Your task to perform on an android device: toggle wifi Image 0: 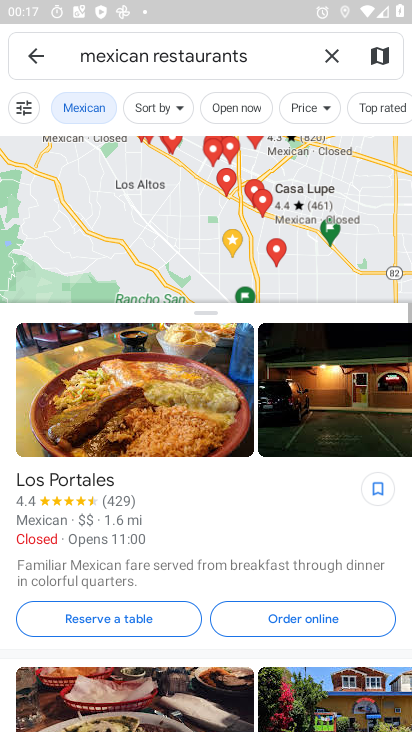
Step 0: press home button
Your task to perform on an android device: toggle wifi Image 1: 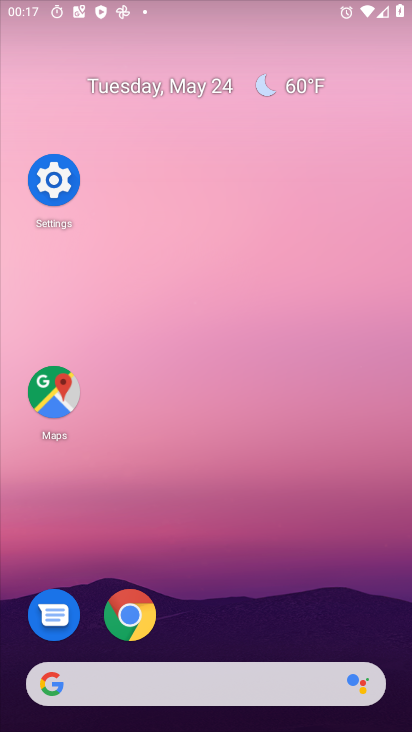
Step 1: drag from (214, 619) to (303, 70)
Your task to perform on an android device: toggle wifi Image 2: 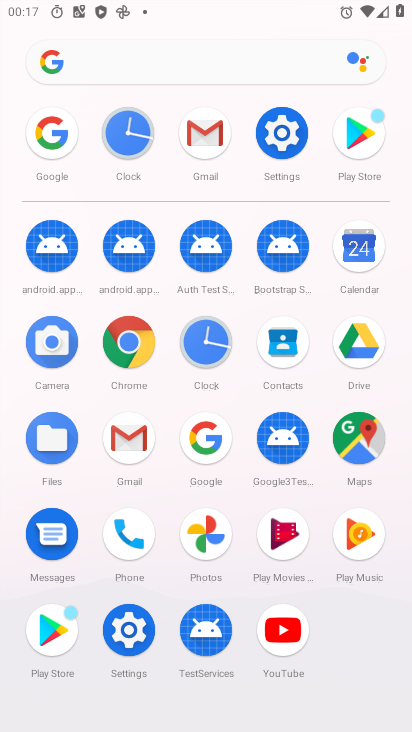
Step 2: click (272, 129)
Your task to perform on an android device: toggle wifi Image 3: 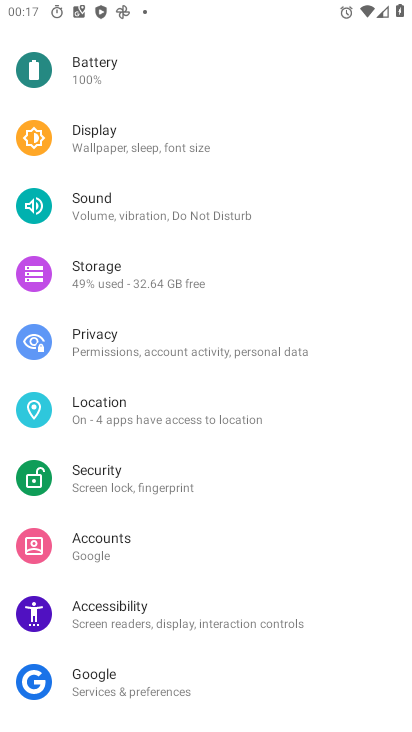
Step 3: drag from (169, 163) to (255, 663)
Your task to perform on an android device: toggle wifi Image 4: 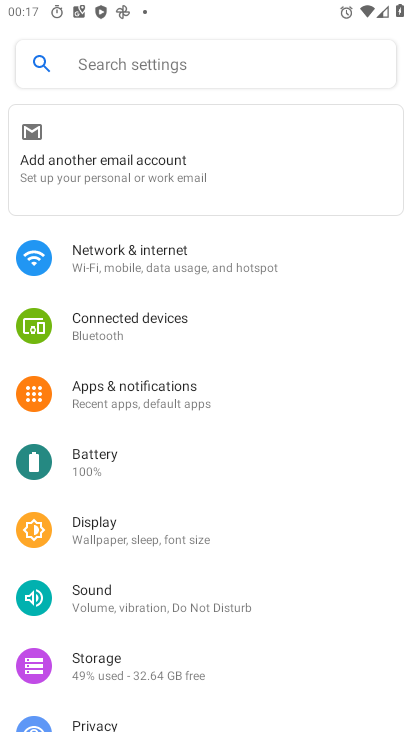
Step 4: click (146, 257)
Your task to perform on an android device: toggle wifi Image 5: 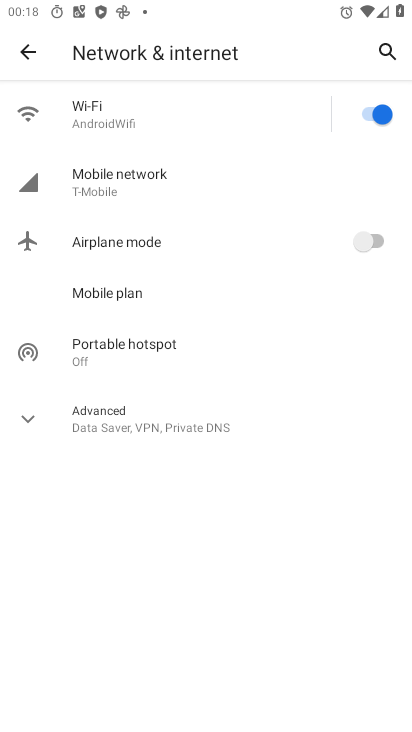
Step 5: click (378, 120)
Your task to perform on an android device: toggle wifi Image 6: 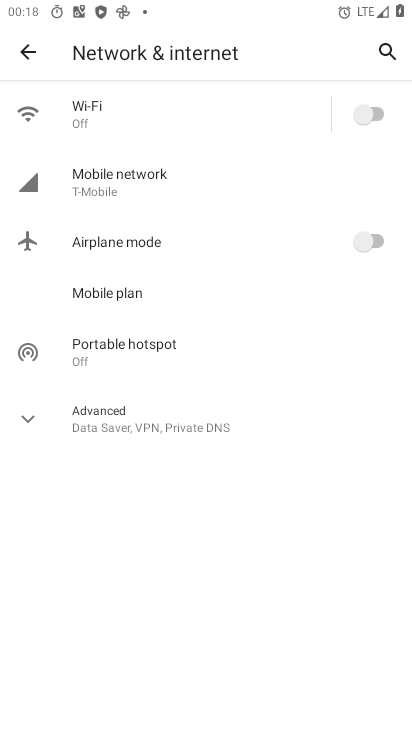
Step 6: task complete